Your task to perform on an android device: see tabs open on other devices in the chrome app Image 0: 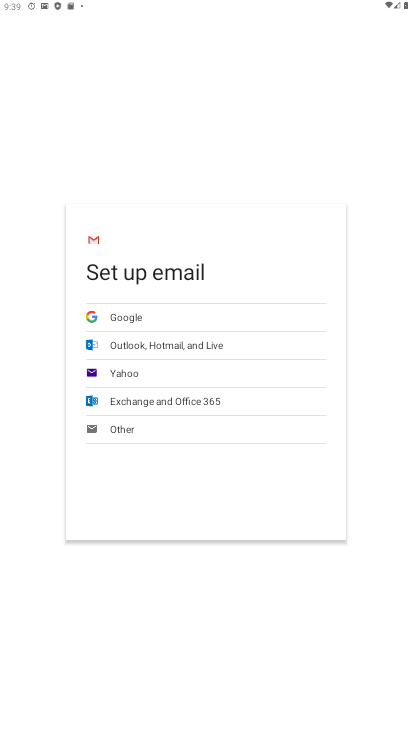
Step 0: press home button
Your task to perform on an android device: see tabs open on other devices in the chrome app Image 1: 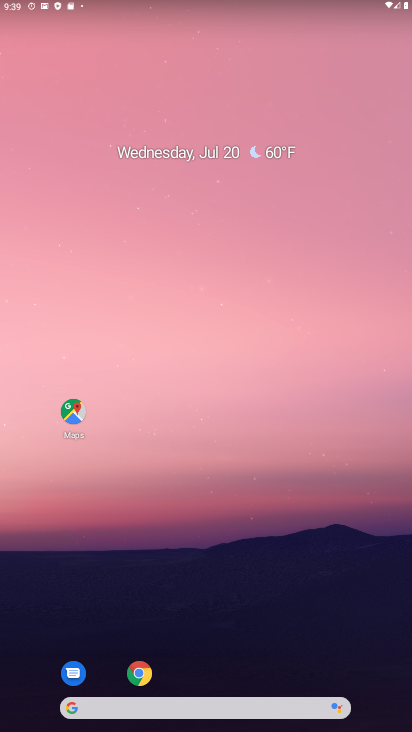
Step 1: click (150, 672)
Your task to perform on an android device: see tabs open on other devices in the chrome app Image 2: 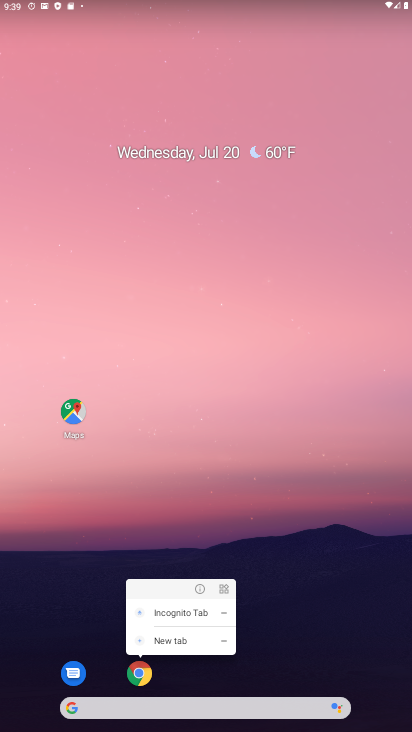
Step 2: click (149, 673)
Your task to perform on an android device: see tabs open on other devices in the chrome app Image 3: 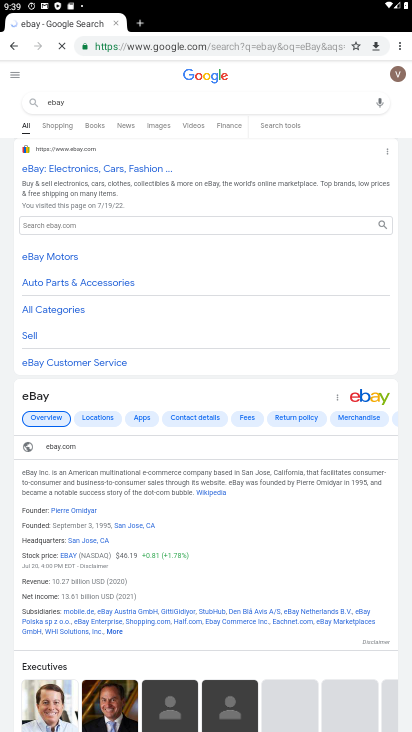
Step 3: click (398, 47)
Your task to perform on an android device: see tabs open on other devices in the chrome app Image 4: 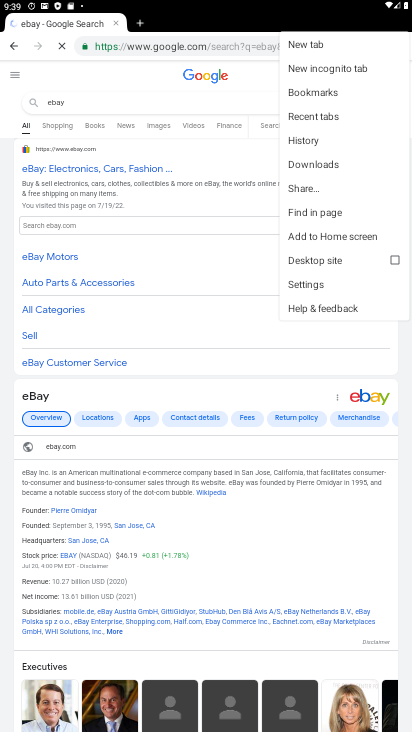
Step 4: click (314, 115)
Your task to perform on an android device: see tabs open on other devices in the chrome app Image 5: 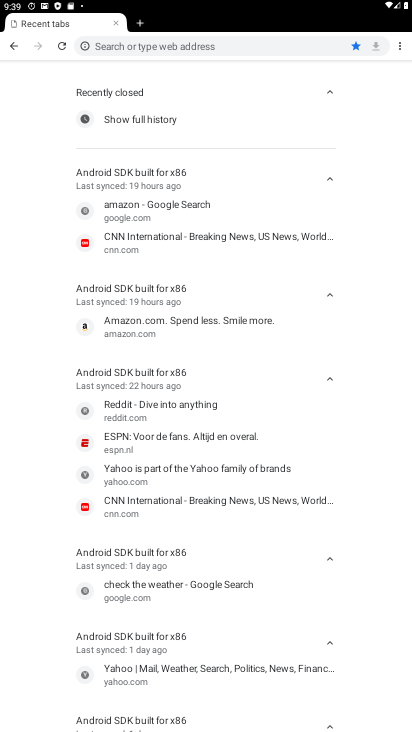
Step 5: task complete